Your task to perform on an android device: What is the news today? Image 0: 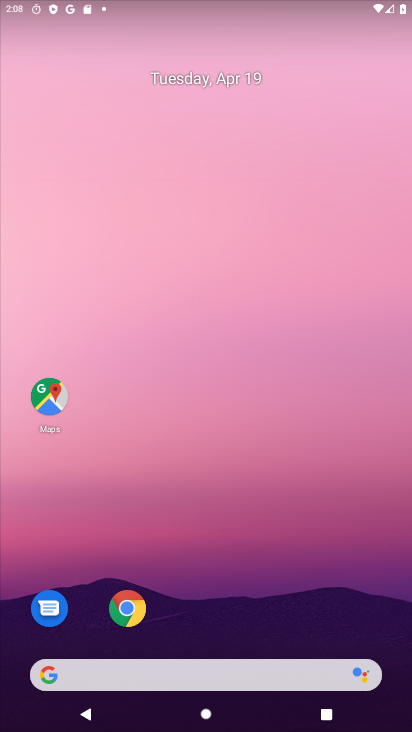
Step 0: click (120, 601)
Your task to perform on an android device: What is the news today? Image 1: 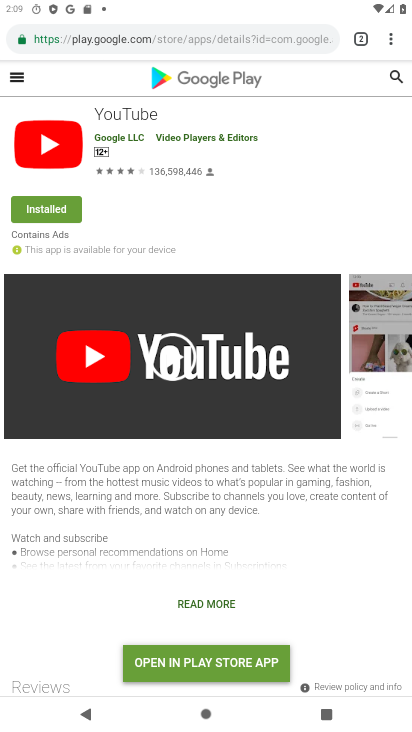
Step 1: click (224, 30)
Your task to perform on an android device: What is the news today? Image 2: 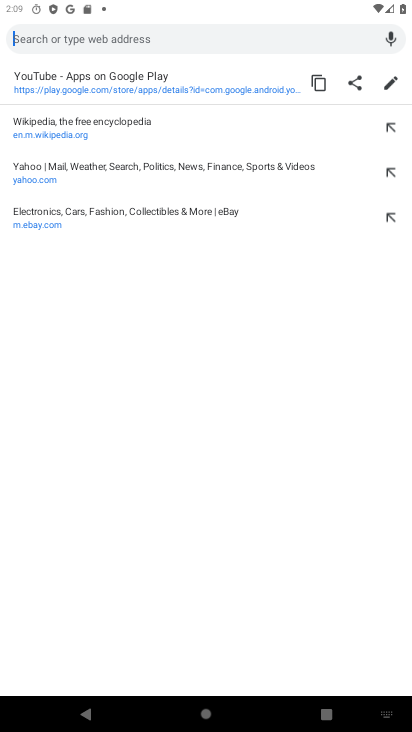
Step 2: type "What is the news today?"
Your task to perform on an android device: What is the news today? Image 3: 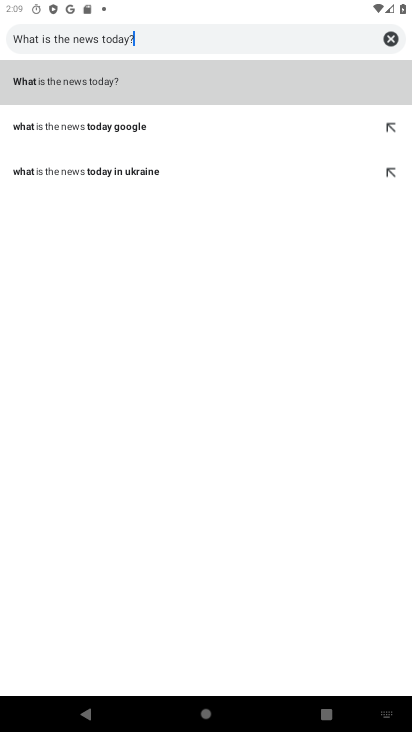
Step 3: click (82, 83)
Your task to perform on an android device: What is the news today? Image 4: 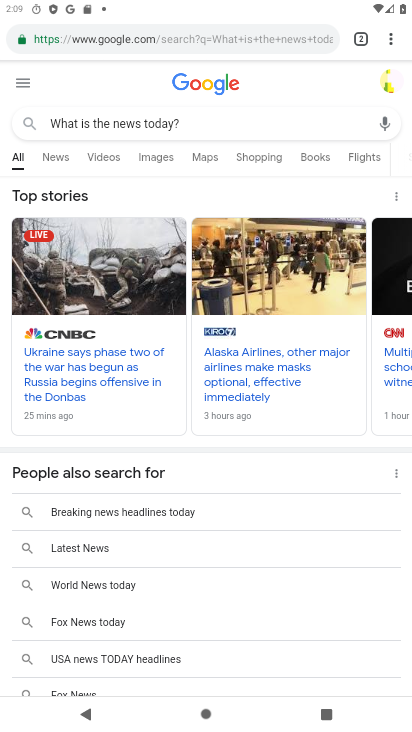
Step 4: task complete